Your task to perform on an android device: Add "logitech g pro" to the cart on costco Image 0: 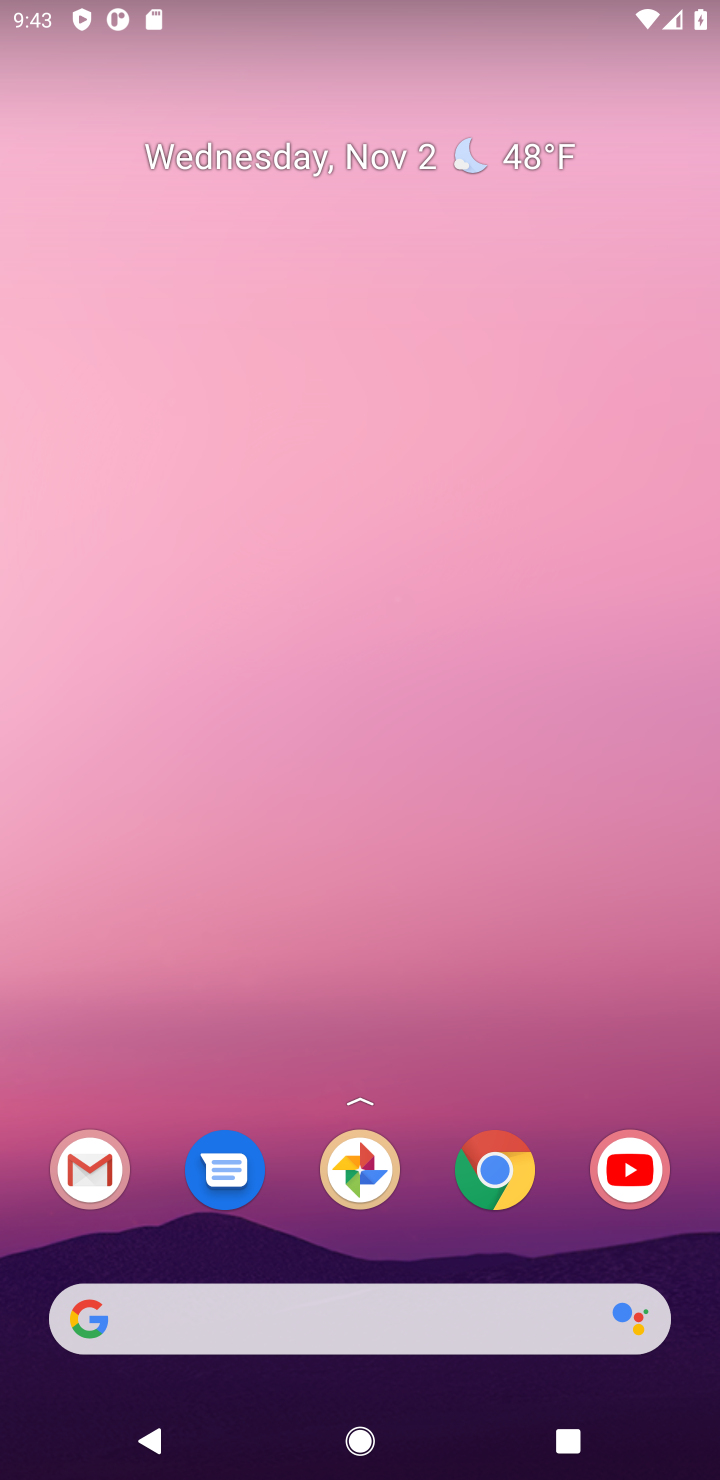
Step 0: drag from (423, 661) to (438, 11)
Your task to perform on an android device: Add "logitech g pro" to the cart on costco Image 1: 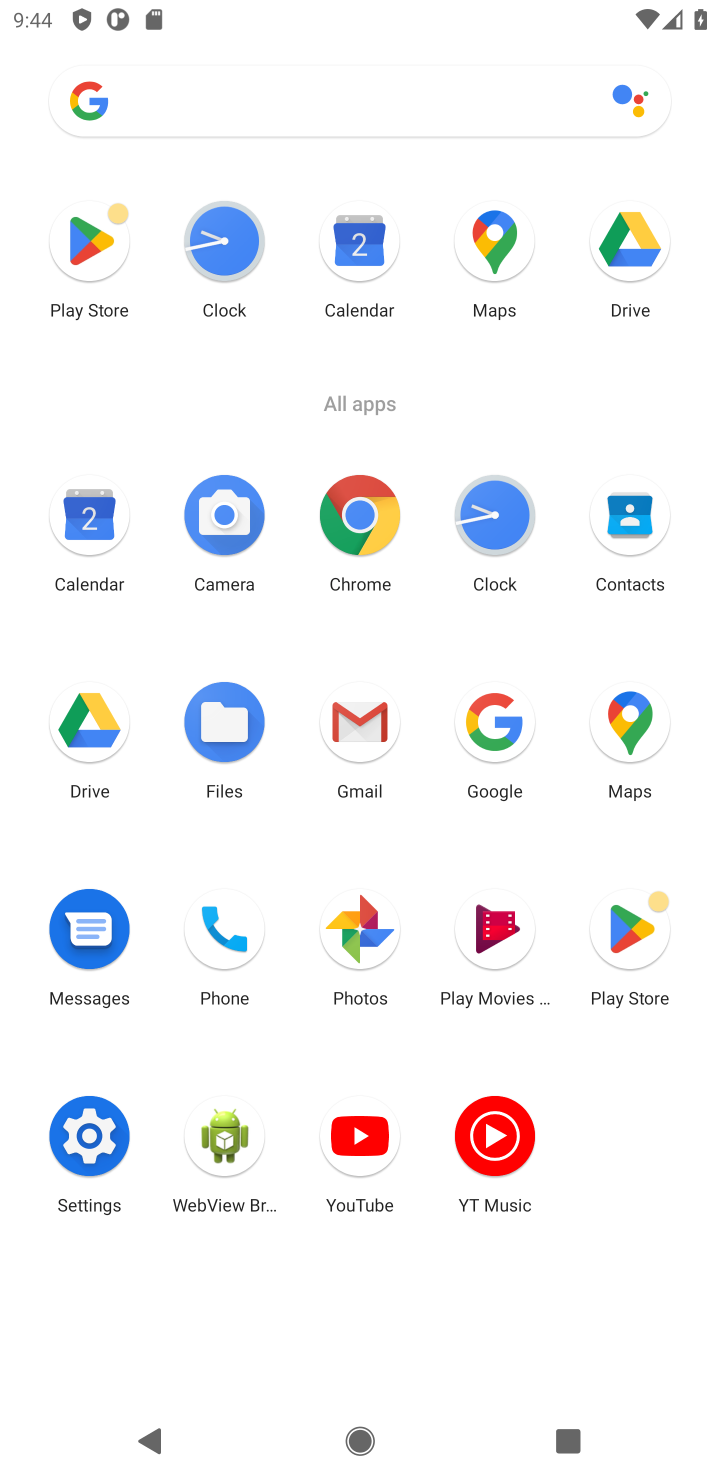
Step 1: click (473, 733)
Your task to perform on an android device: Add "logitech g pro" to the cart on costco Image 2: 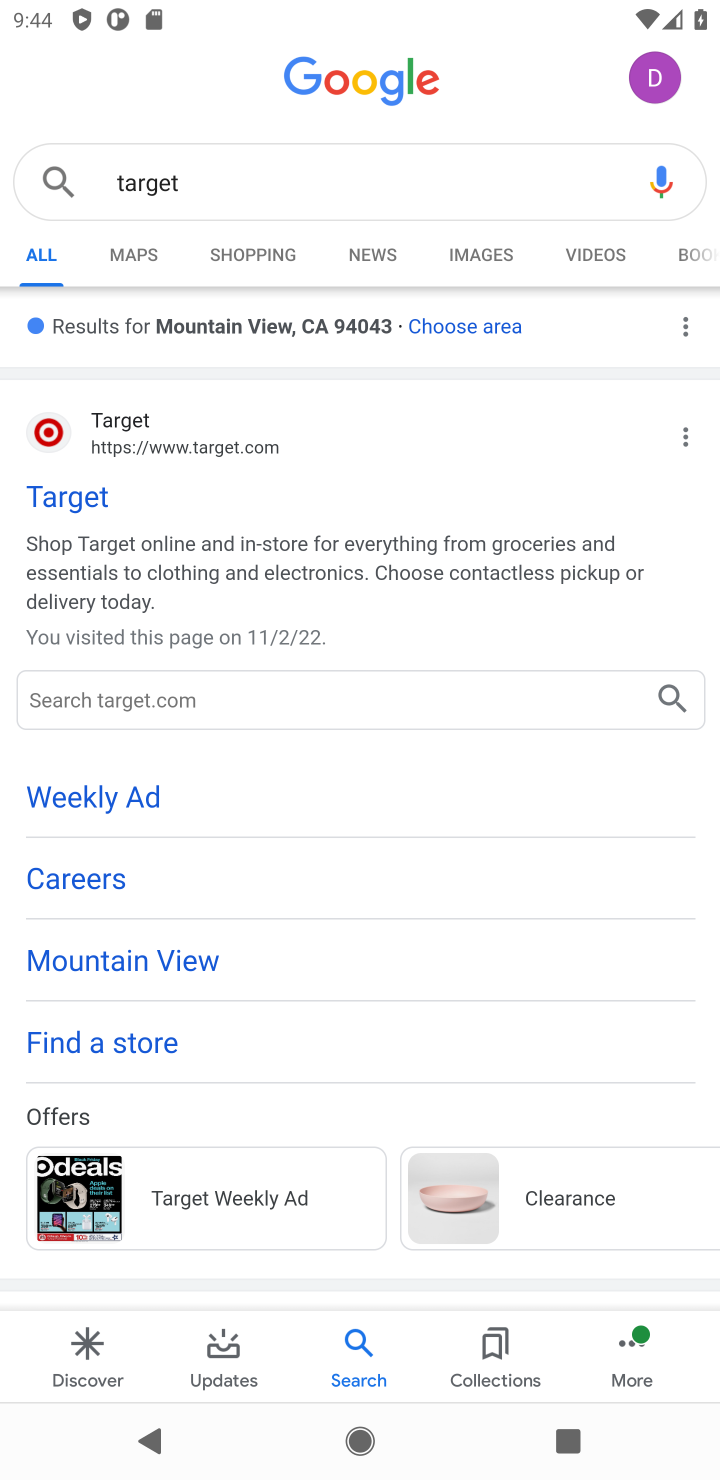
Step 2: click (406, 174)
Your task to perform on an android device: Add "logitech g pro" to the cart on costco Image 3: 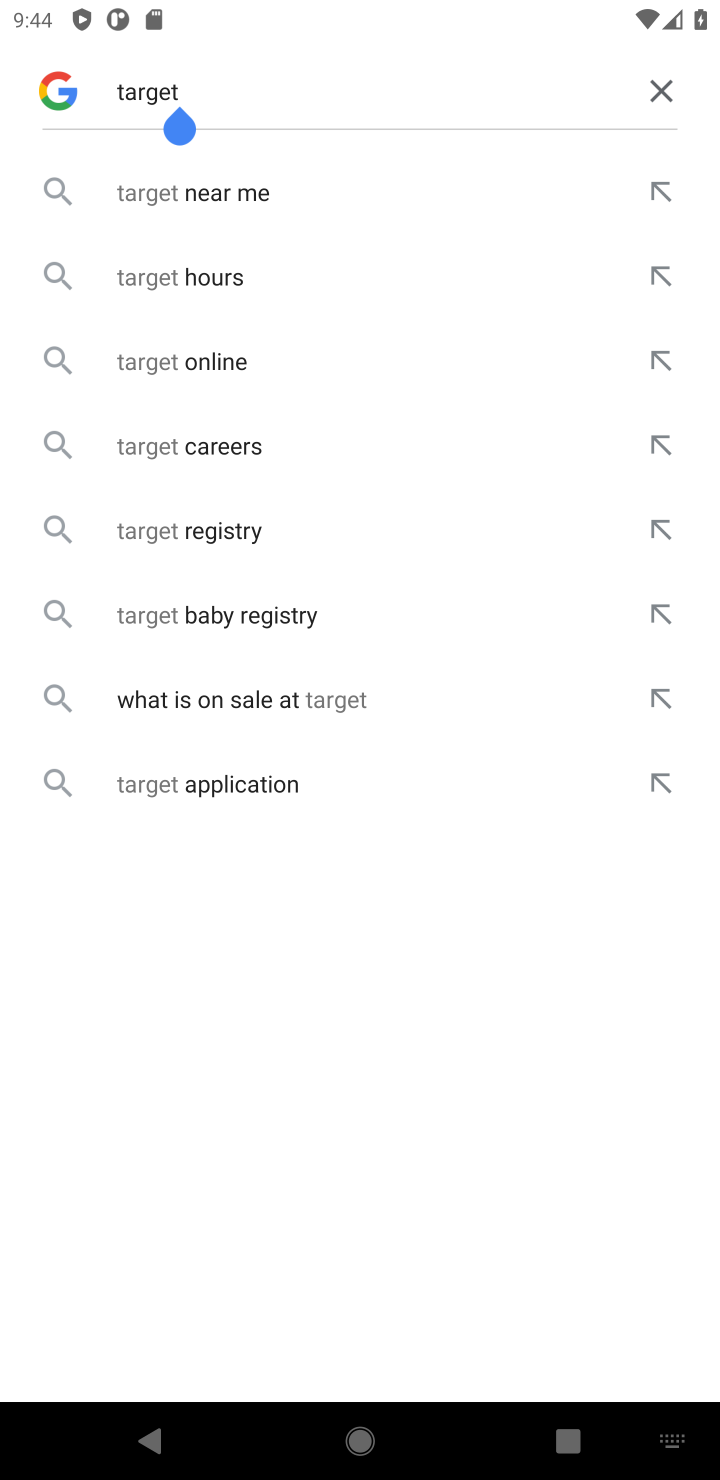
Step 3: click (666, 98)
Your task to perform on an android device: Add "logitech g pro" to the cart on costco Image 4: 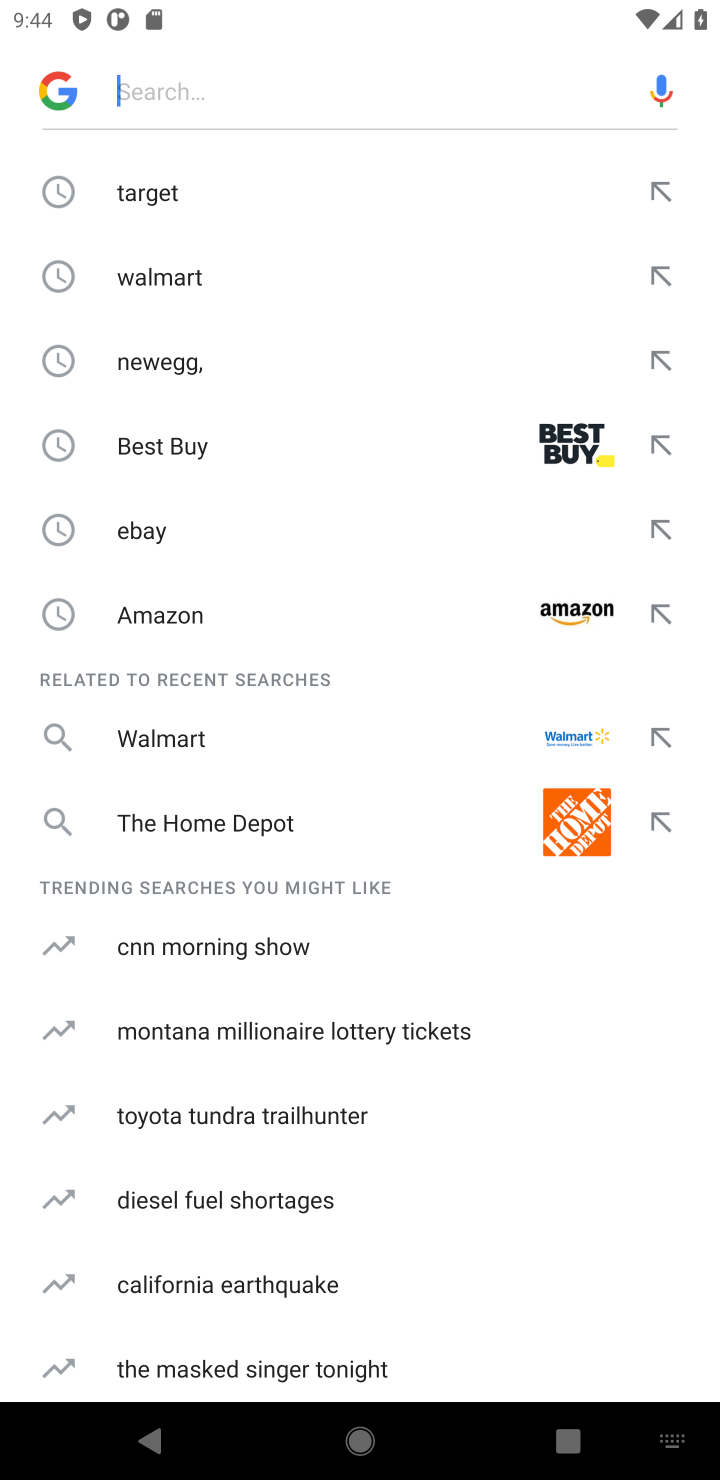
Step 4: type "costco"
Your task to perform on an android device: Add "logitech g pro" to the cart on costco Image 5: 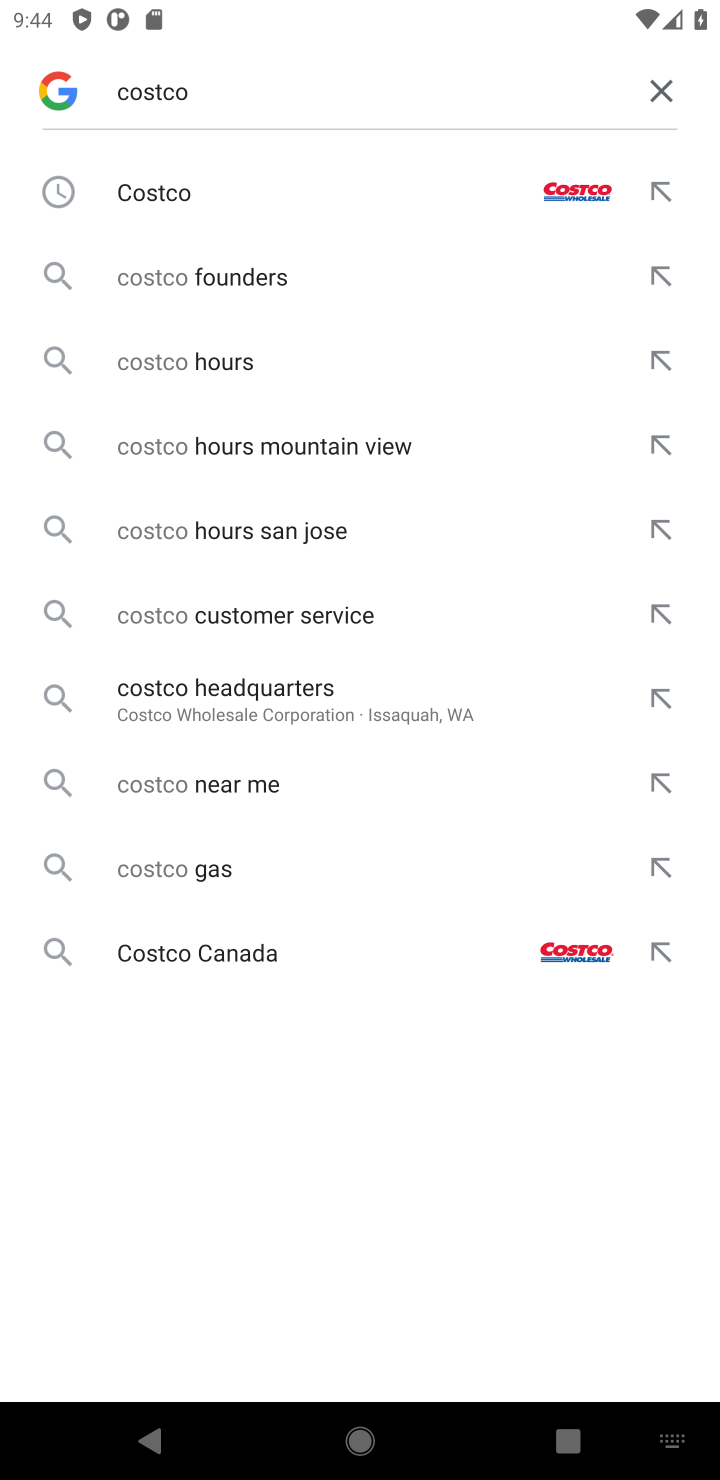
Step 5: click (241, 189)
Your task to perform on an android device: Add "logitech g pro" to the cart on costco Image 6: 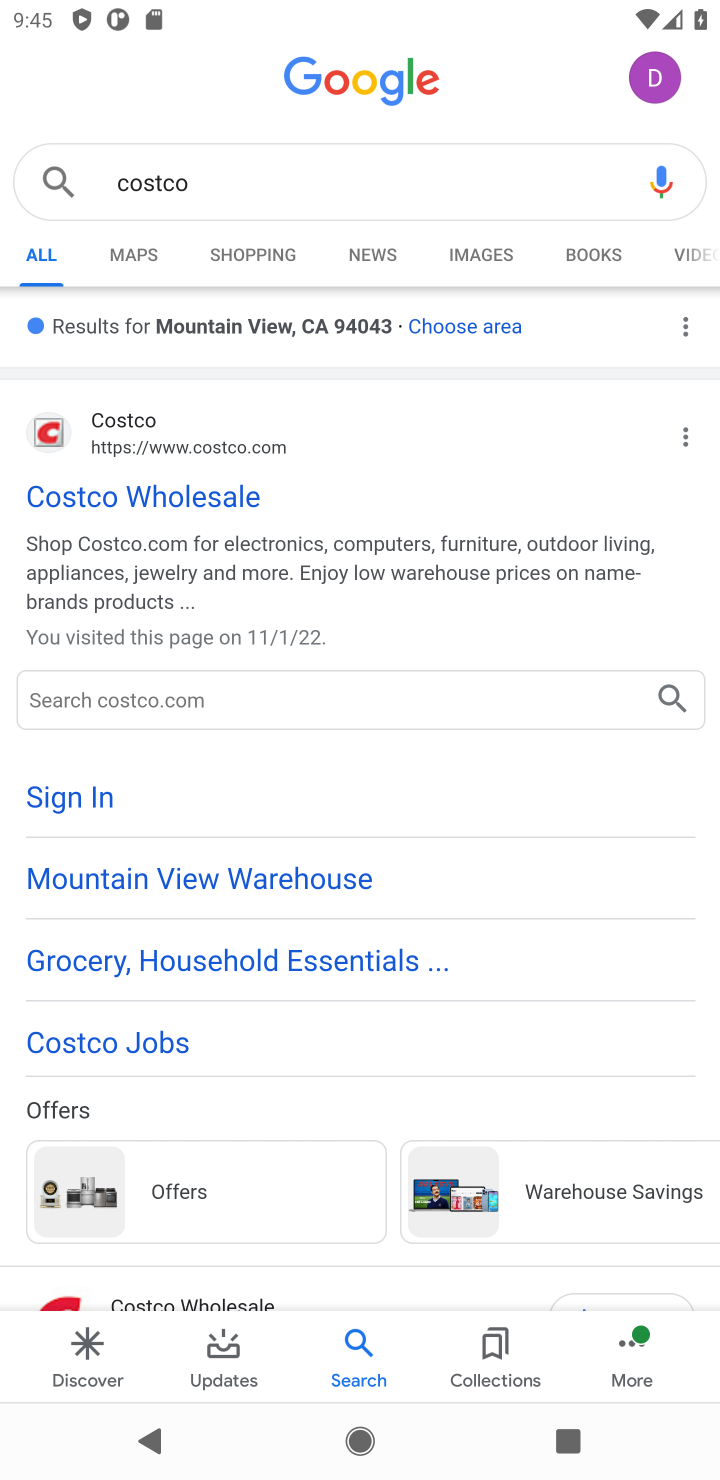
Step 6: click (196, 501)
Your task to perform on an android device: Add "logitech g pro" to the cart on costco Image 7: 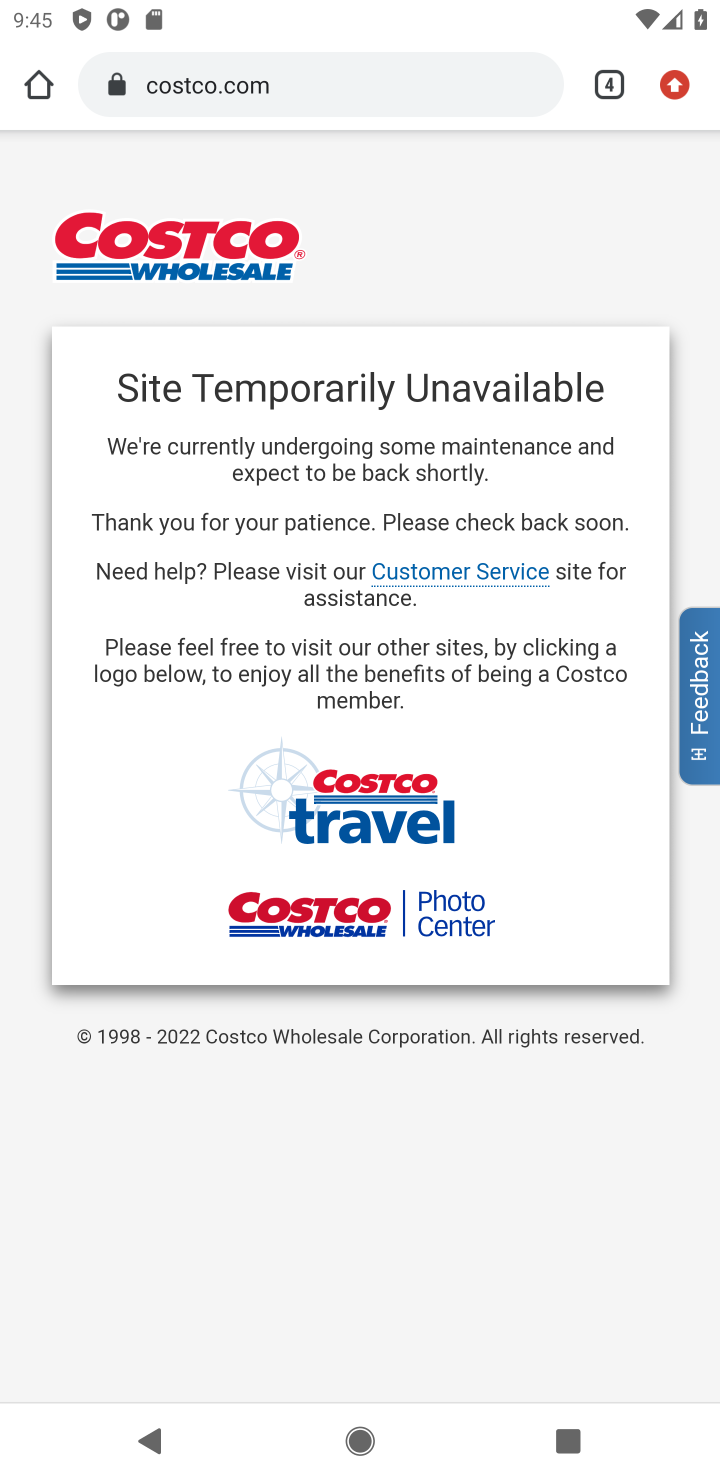
Step 7: task complete